Your task to perform on an android device: see sites visited before in the chrome app Image 0: 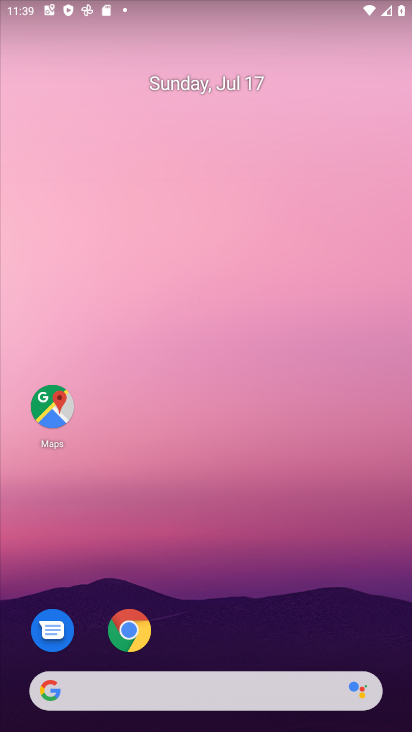
Step 0: click (143, 630)
Your task to perform on an android device: see sites visited before in the chrome app Image 1: 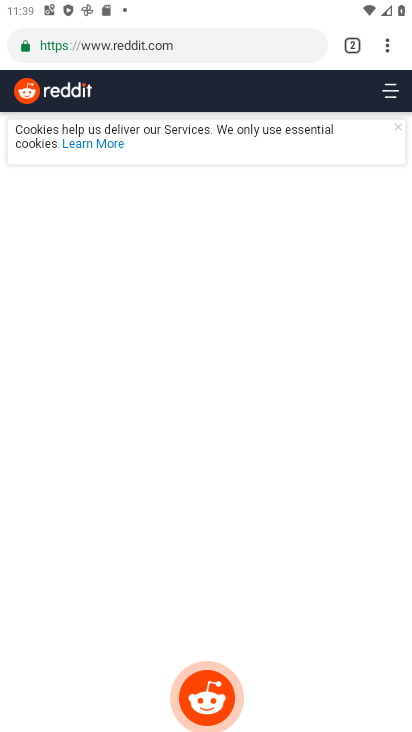
Step 1: click (391, 36)
Your task to perform on an android device: see sites visited before in the chrome app Image 2: 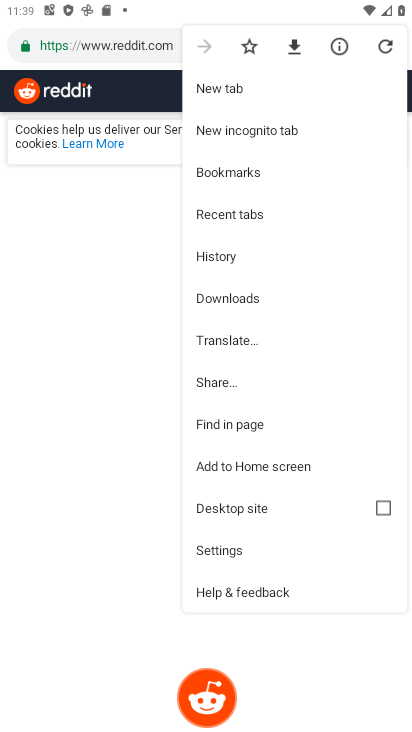
Step 2: click (223, 545)
Your task to perform on an android device: see sites visited before in the chrome app Image 3: 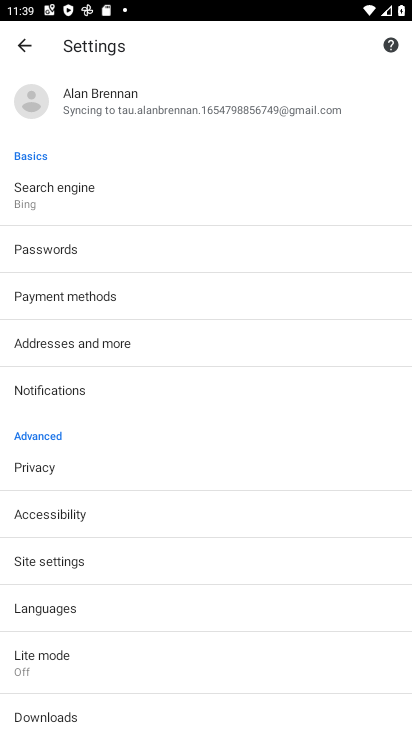
Step 3: task complete